Your task to perform on an android device: toggle priority inbox in the gmail app Image 0: 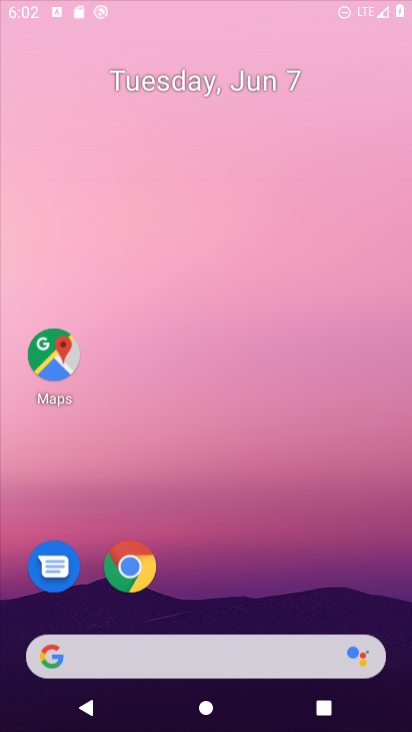
Step 0: click (295, 30)
Your task to perform on an android device: toggle priority inbox in the gmail app Image 1: 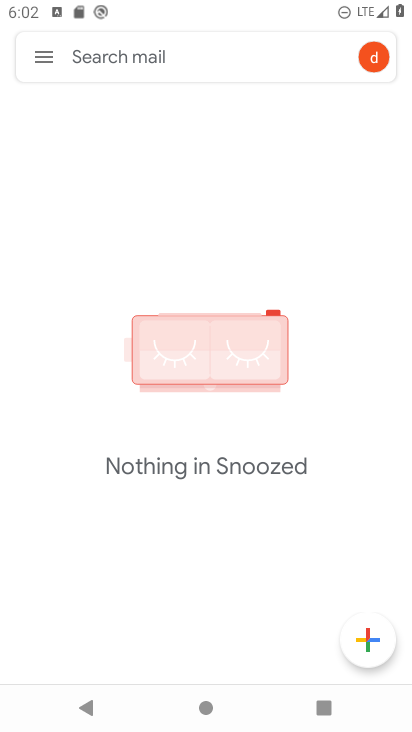
Step 1: press home button
Your task to perform on an android device: toggle priority inbox in the gmail app Image 2: 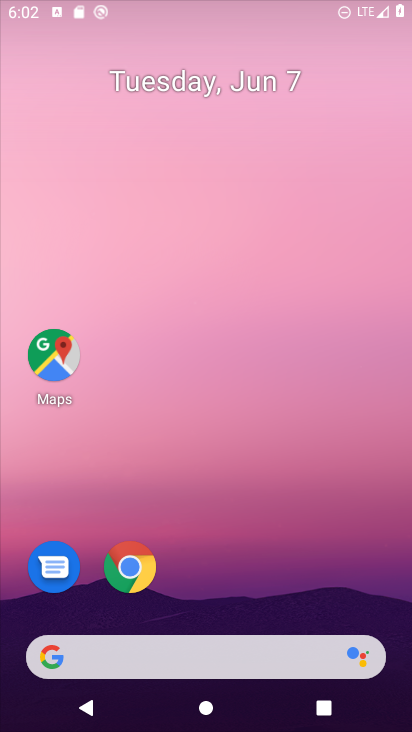
Step 2: drag from (206, 661) to (332, 24)
Your task to perform on an android device: toggle priority inbox in the gmail app Image 3: 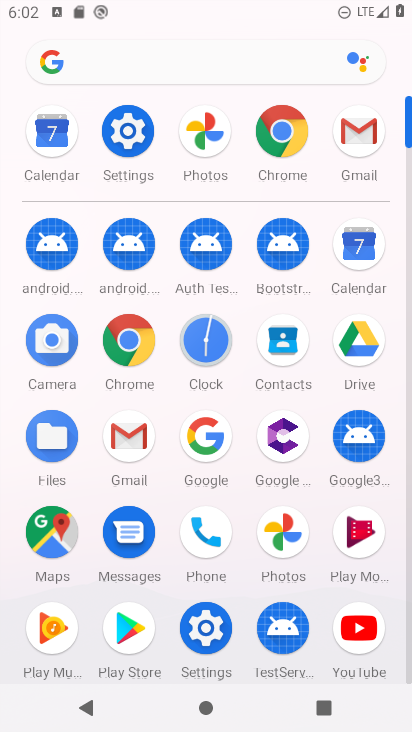
Step 3: click (142, 433)
Your task to perform on an android device: toggle priority inbox in the gmail app Image 4: 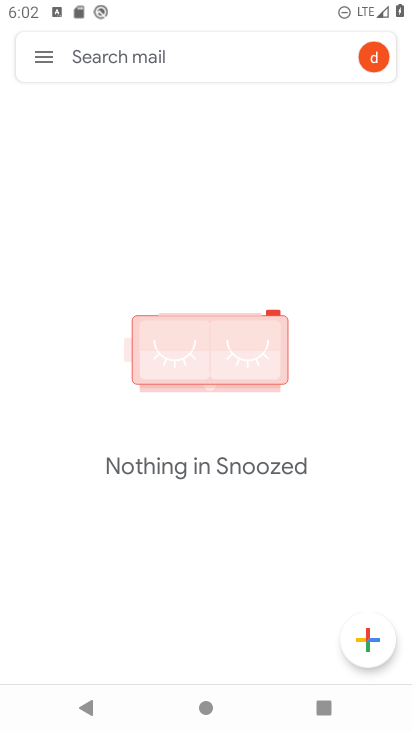
Step 4: click (43, 52)
Your task to perform on an android device: toggle priority inbox in the gmail app Image 5: 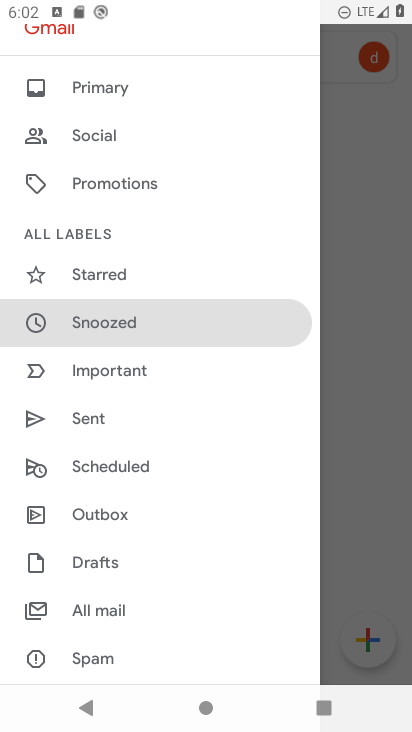
Step 5: drag from (208, 623) to (245, 121)
Your task to perform on an android device: toggle priority inbox in the gmail app Image 6: 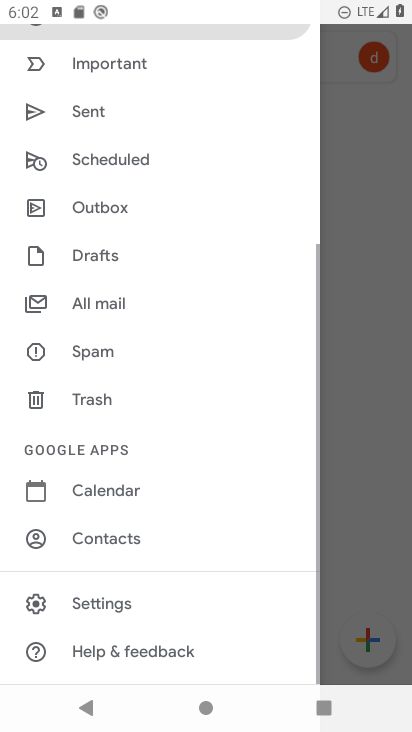
Step 6: click (158, 601)
Your task to perform on an android device: toggle priority inbox in the gmail app Image 7: 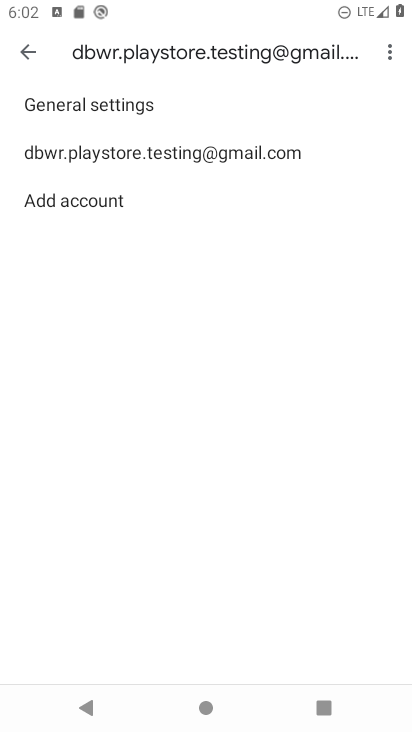
Step 7: click (193, 144)
Your task to perform on an android device: toggle priority inbox in the gmail app Image 8: 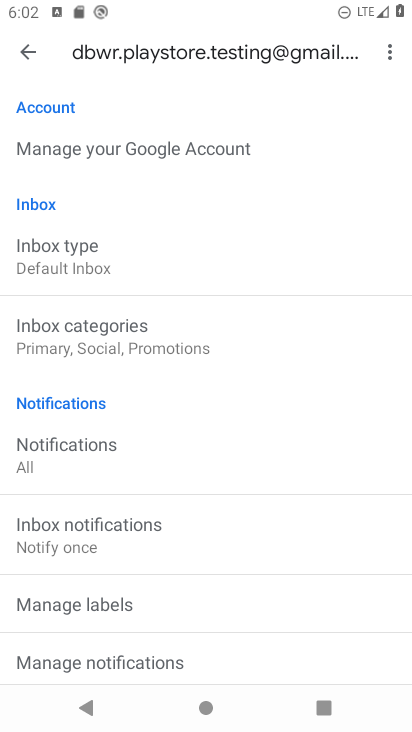
Step 8: click (107, 254)
Your task to perform on an android device: toggle priority inbox in the gmail app Image 9: 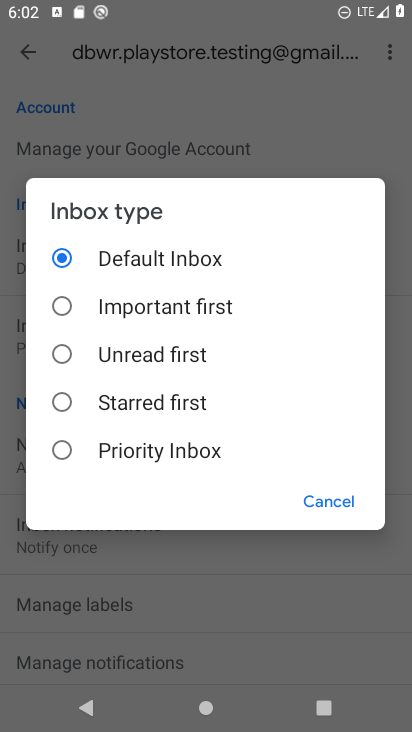
Step 9: click (121, 454)
Your task to perform on an android device: toggle priority inbox in the gmail app Image 10: 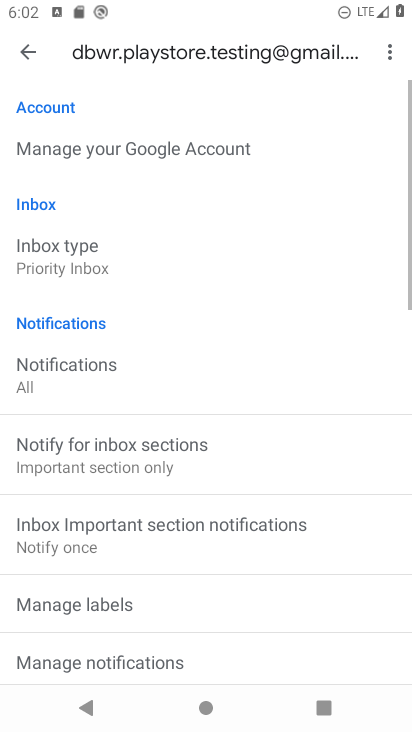
Step 10: task complete